Your task to perform on an android device: Search for seafood restaurants on Google Maps Image 0: 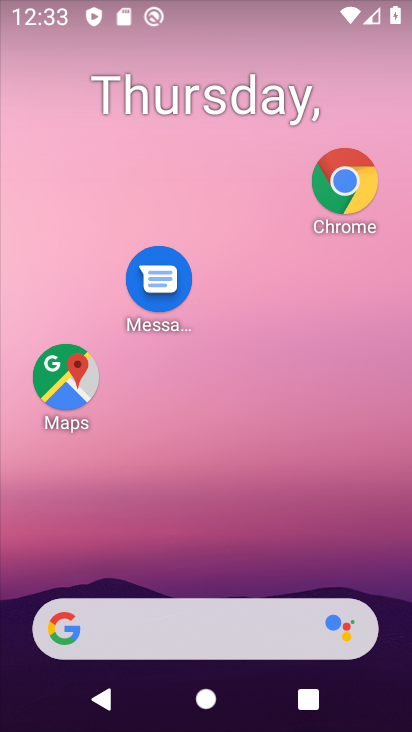
Step 0: drag from (180, 570) to (334, 72)
Your task to perform on an android device: Search for seafood restaurants on Google Maps Image 1: 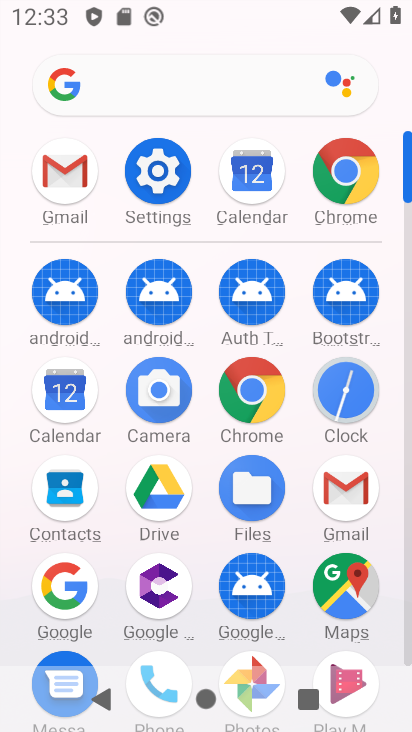
Step 1: click (366, 600)
Your task to perform on an android device: Search for seafood restaurants on Google Maps Image 2: 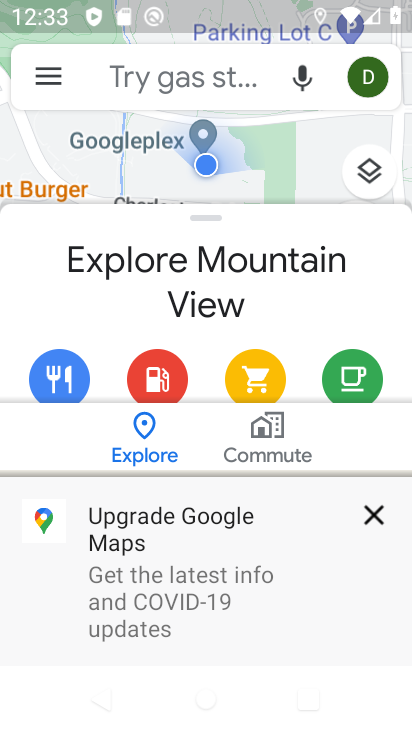
Step 2: click (231, 72)
Your task to perform on an android device: Search for seafood restaurants on Google Maps Image 3: 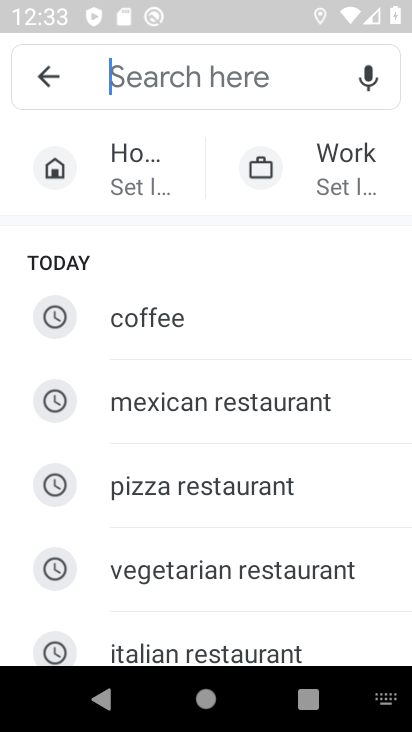
Step 3: drag from (175, 524) to (299, 270)
Your task to perform on an android device: Search for seafood restaurants on Google Maps Image 4: 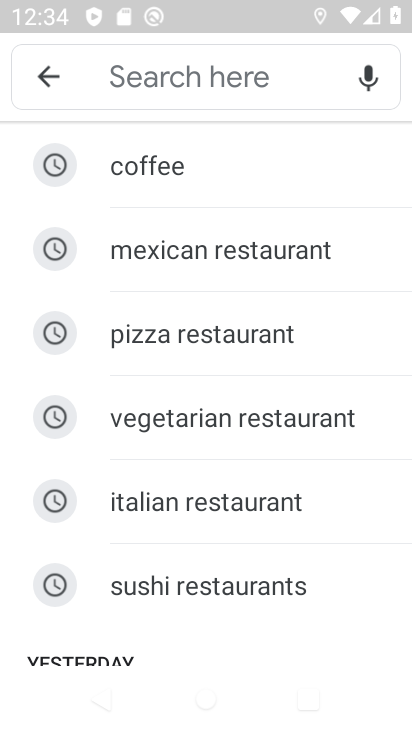
Step 4: drag from (202, 502) to (250, 332)
Your task to perform on an android device: Search for seafood restaurants on Google Maps Image 5: 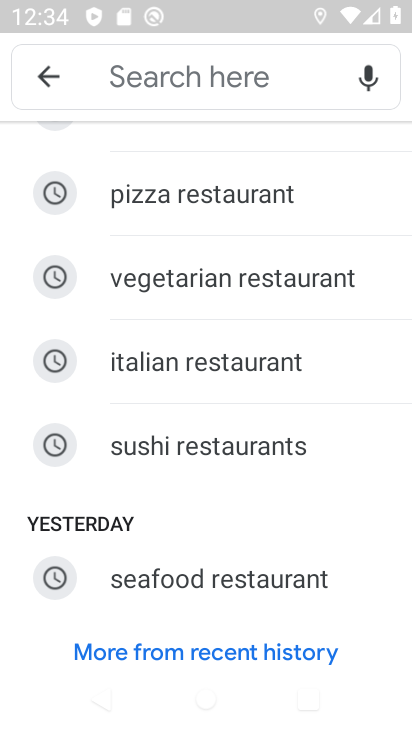
Step 5: click (174, 582)
Your task to perform on an android device: Search for seafood restaurants on Google Maps Image 6: 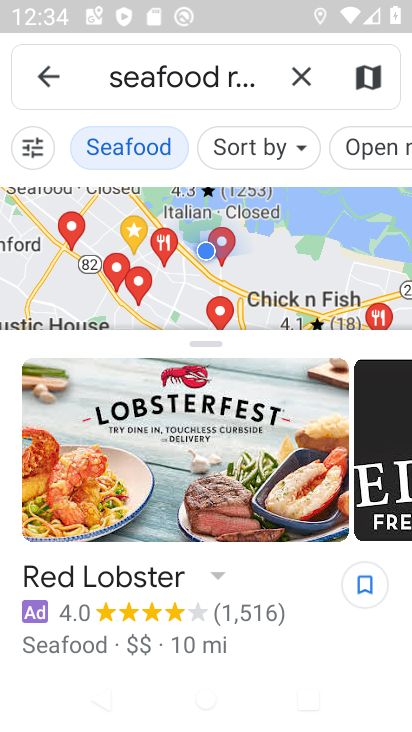
Step 6: task complete